Your task to perform on an android device: Open calendar and show me the second week of next month Image 0: 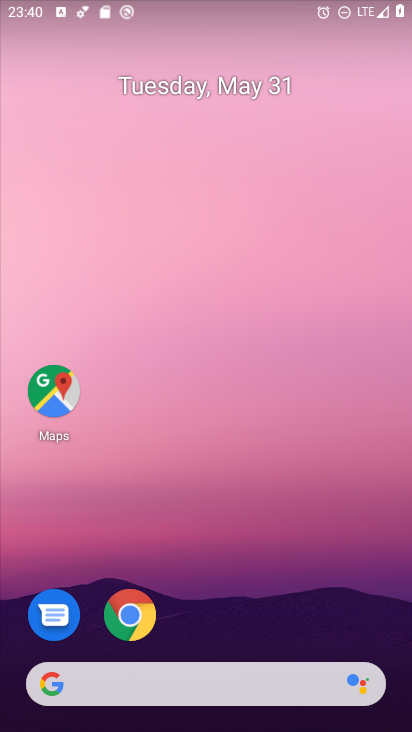
Step 0: drag from (325, 589) to (234, 12)
Your task to perform on an android device: Open calendar and show me the second week of next month Image 1: 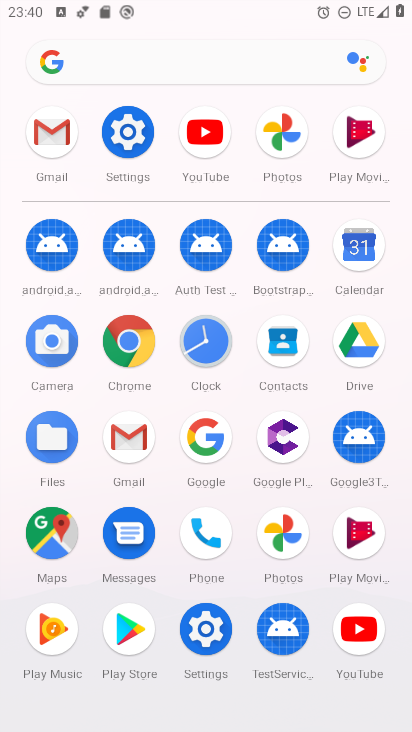
Step 1: click (360, 244)
Your task to perform on an android device: Open calendar and show me the second week of next month Image 2: 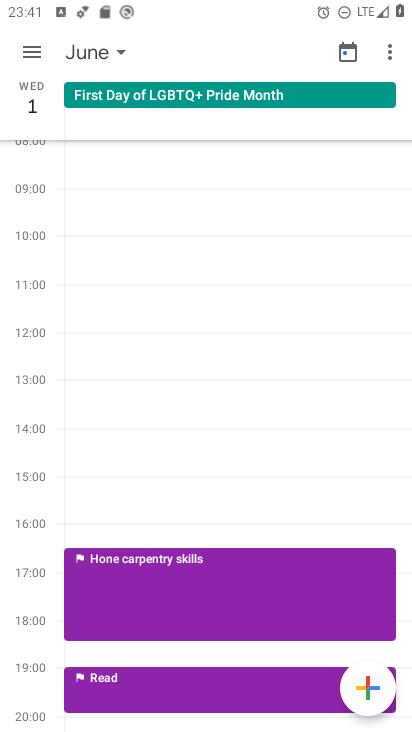
Step 2: click (39, 50)
Your task to perform on an android device: Open calendar and show me the second week of next month Image 3: 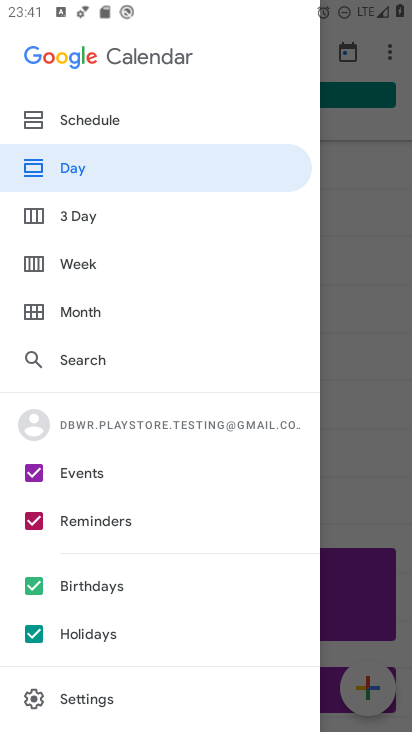
Step 3: click (77, 266)
Your task to perform on an android device: Open calendar and show me the second week of next month Image 4: 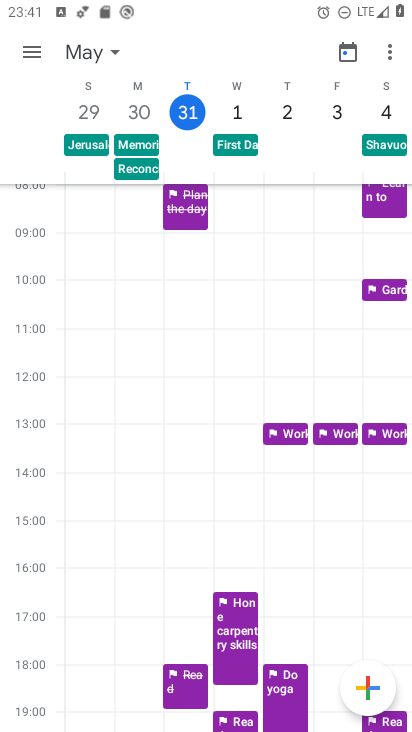
Step 4: click (113, 47)
Your task to perform on an android device: Open calendar and show me the second week of next month Image 5: 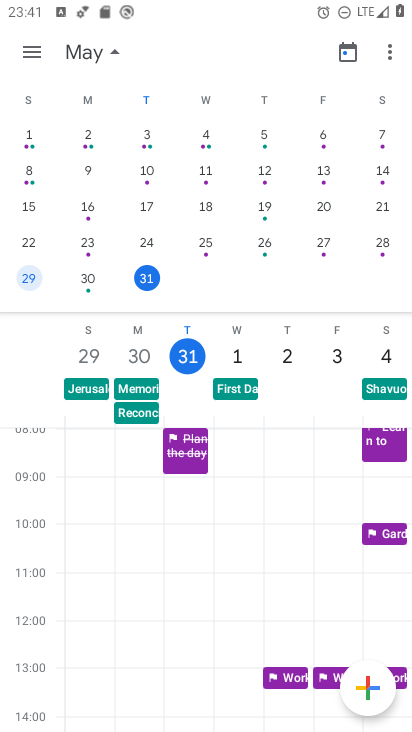
Step 5: drag from (385, 225) to (94, 202)
Your task to perform on an android device: Open calendar and show me the second week of next month Image 6: 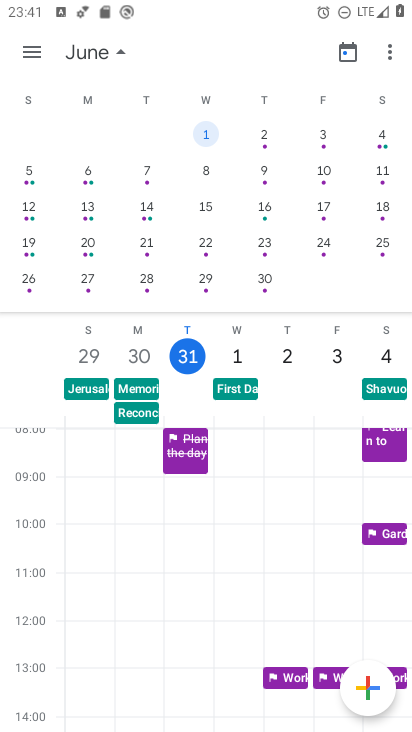
Step 6: click (32, 209)
Your task to perform on an android device: Open calendar and show me the second week of next month Image 7: 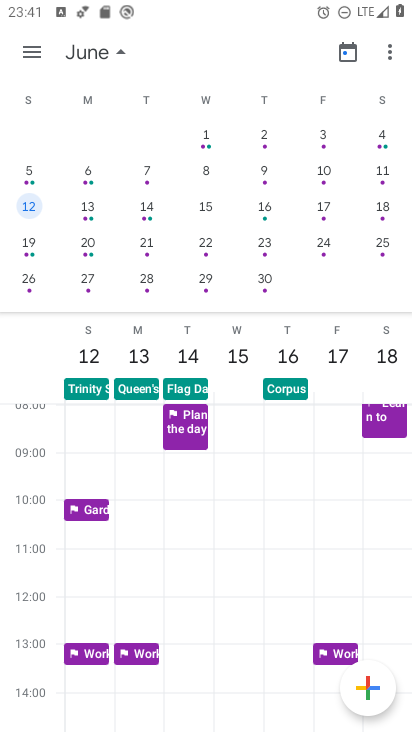
Step 7: task complete